Your task to perform on an android device: What's the weather going to be tomorrow? Image 0: 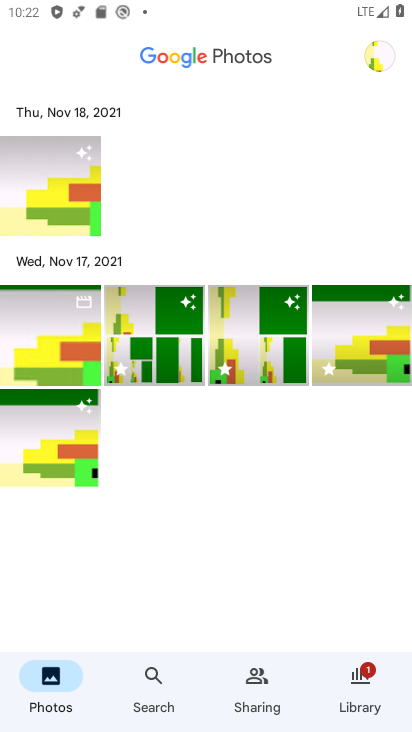
Step 0: press home button
Your task to perform on an android device: What's the weather going to be tomorrow? Image 1: 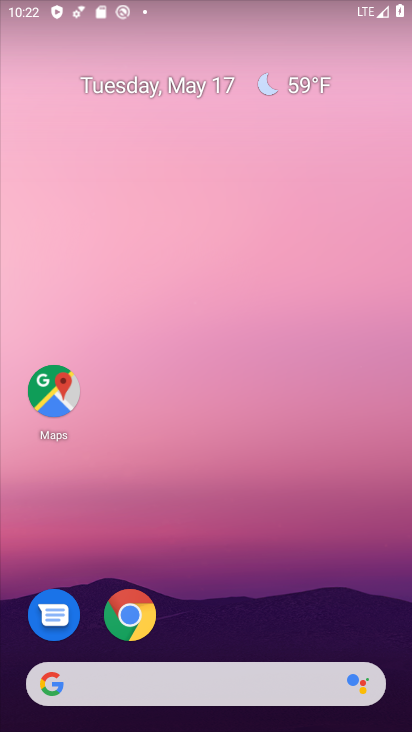
Step 1: click (294, 81)
Your task to perform on an android device: What's the weather going to be tomorrow? Image 2: 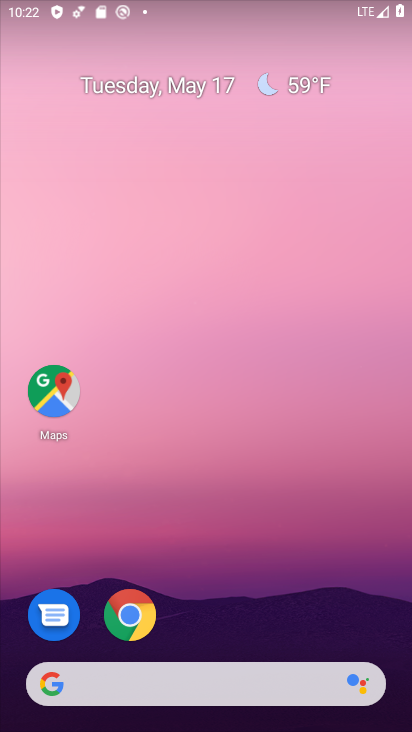
Step 2: click (307, 81)
Your task to perform on an android device: What's the weather going to be tomorrow? Image 3: 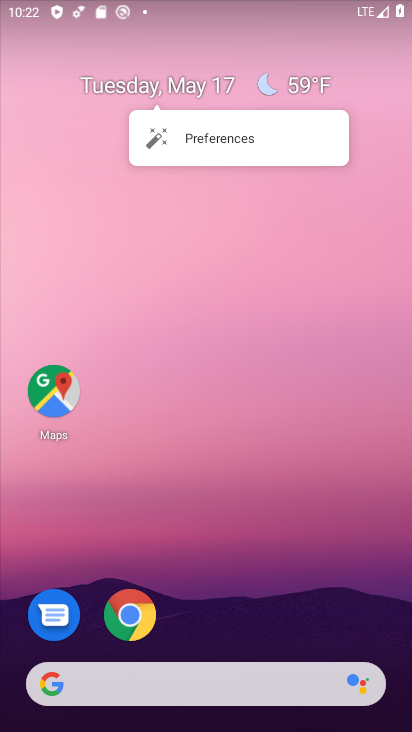
Step 3: click (305, 84)
Your task to perform on an android device: What's the weather going to be tomorrow? Image 4: 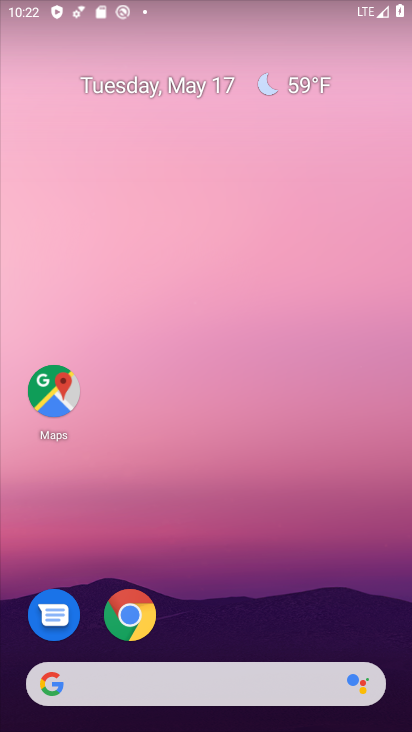
Step 4: click (295, 89)
Your task to perform on an android device: What's the weather going to be tomorrow? Image 5: 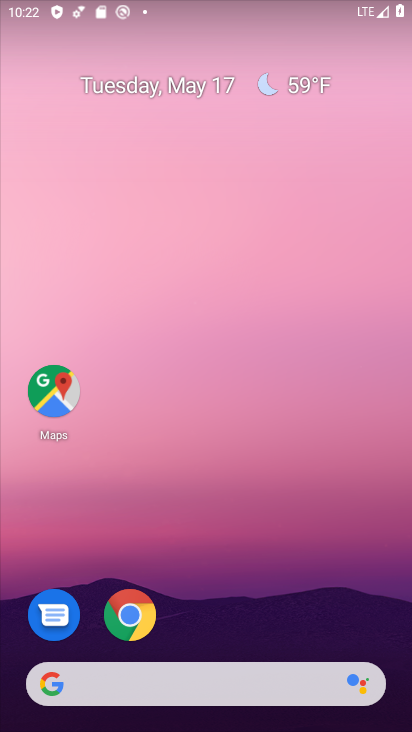
Step 5: click (307, 79)
Your task to perform on an android device: What's the weather going to be tomorrow? Image 6: 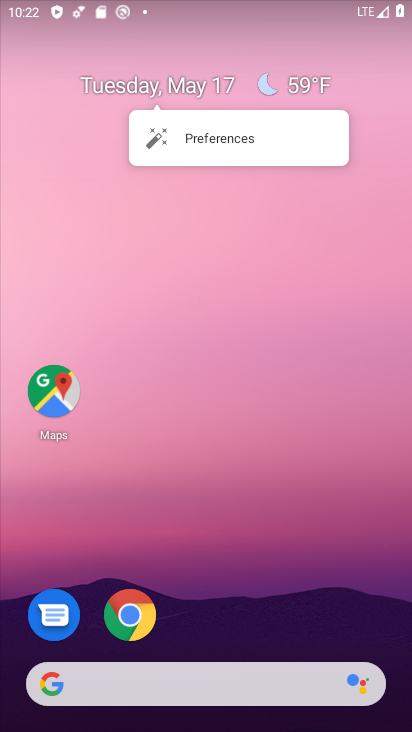
Step 6: click (57, 686)
Your task to perform on an android device: What's the weather going to be tomorrow? Image 7: 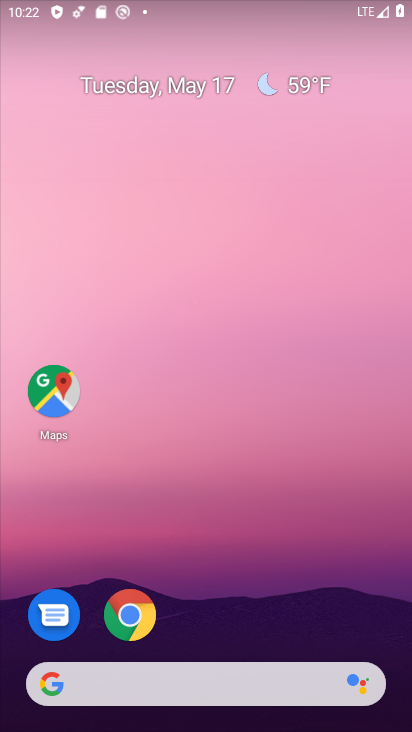
Step 7: click (54, 693)
Your task to perform on an android device: What's the weather going to be tomorrow? Image 8: 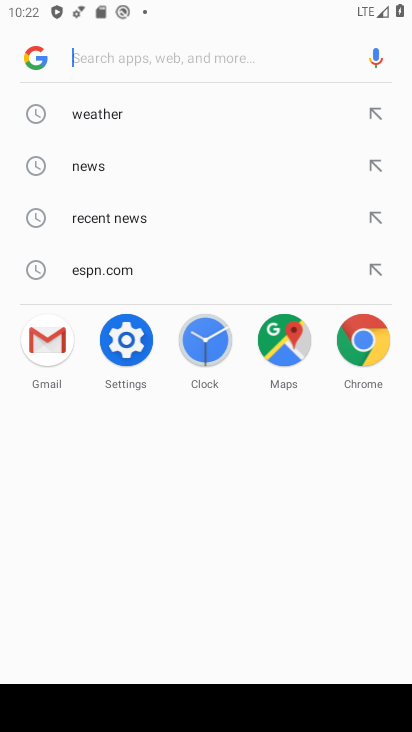
Step 8: click (99, 122)
Your task to perform on an android device: What's the weather going to be tomorrow? Image 9: 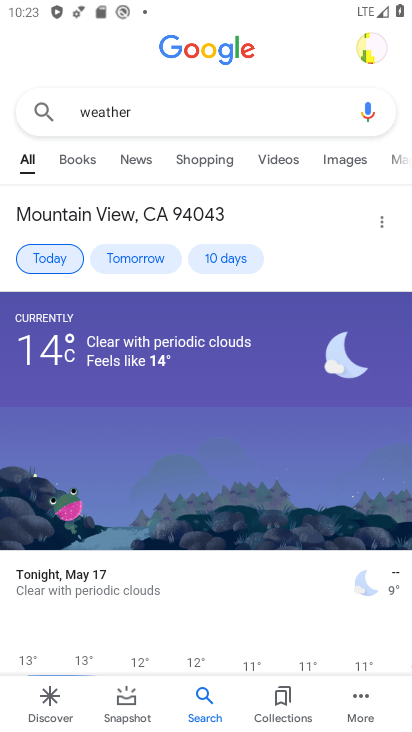
Step 9: click (135, 266)
Your task to perform on an android device: What's the weather going to be tomorrow? Image 10: 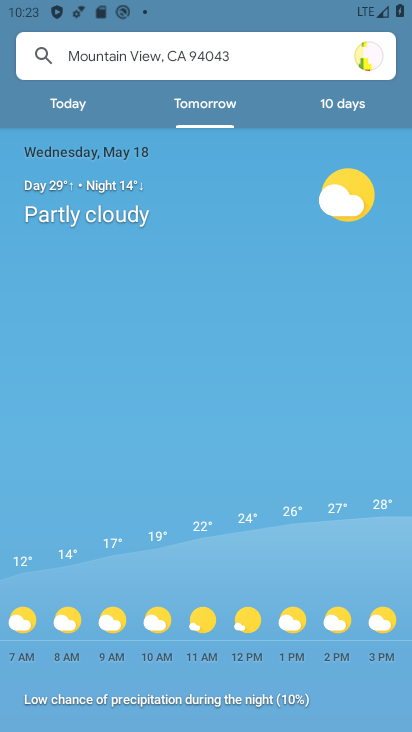
Step 10: task complete